Your task to perform on an android device: find photos in the google photos app Image 0: 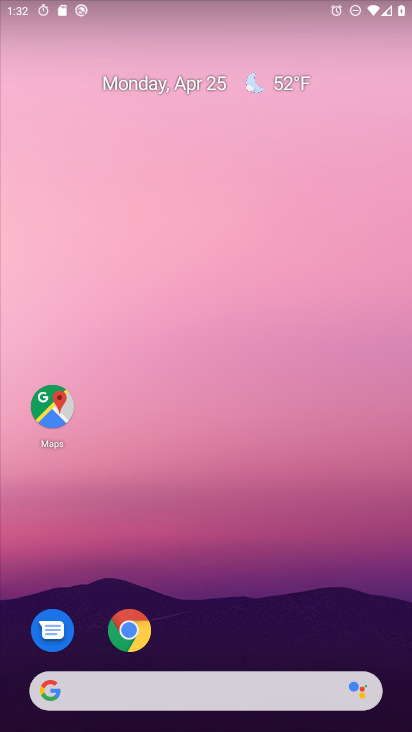
Step 0: drag from (217, 619) to (215, 255)
Your task to perform on an android device: find photos in the google photos app Image 1: 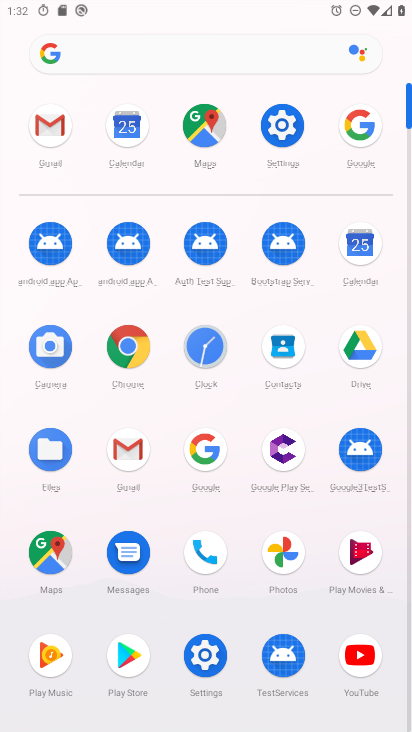
Step 1: click (286, 549)
Your task to perform on an android device: find photos in the google photos app Image 2: 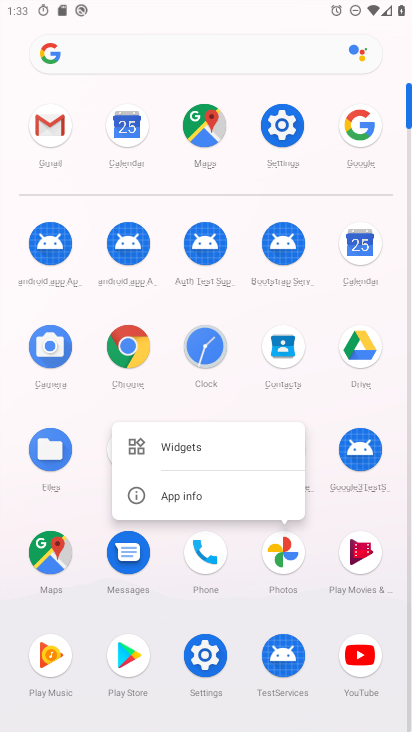
Step 2: click (153, 490)
Your task to perform on an android device: find photos in the google photos app Image 3: 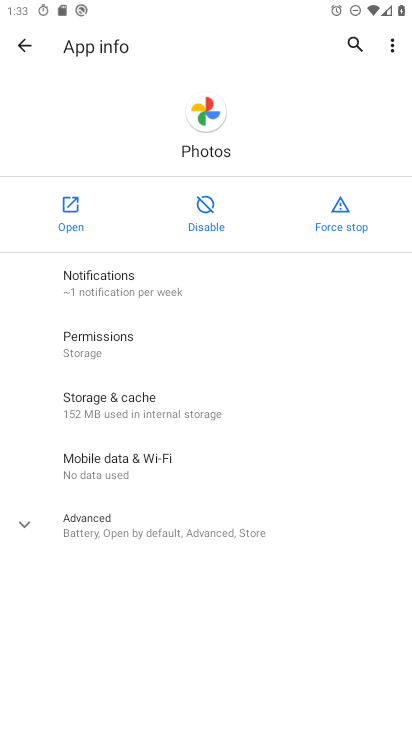
Step 3: click (24, 204)
Your task to perform on an android device: find photos in the google photos app Image 4: 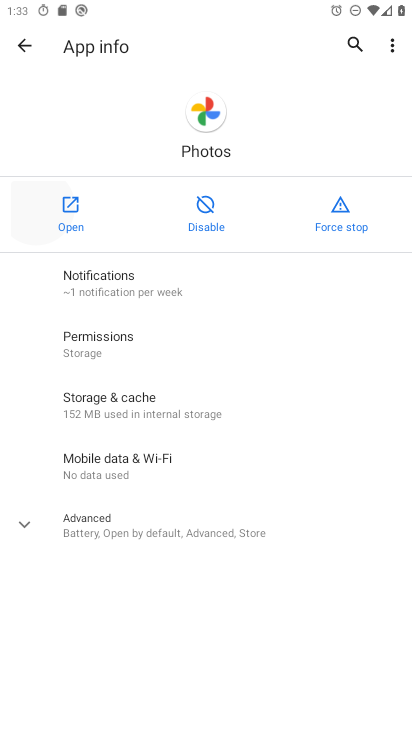
Step 4: click (64, 202)
Your task to perform on an android device: find photos in the google photos app Image 5: 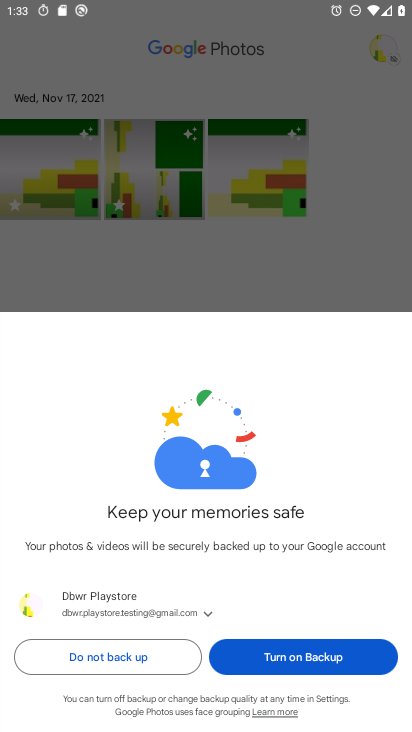
Step 5: click (234, 384)
Your task to perform on an android device: find photos in the google photos app Image 6: 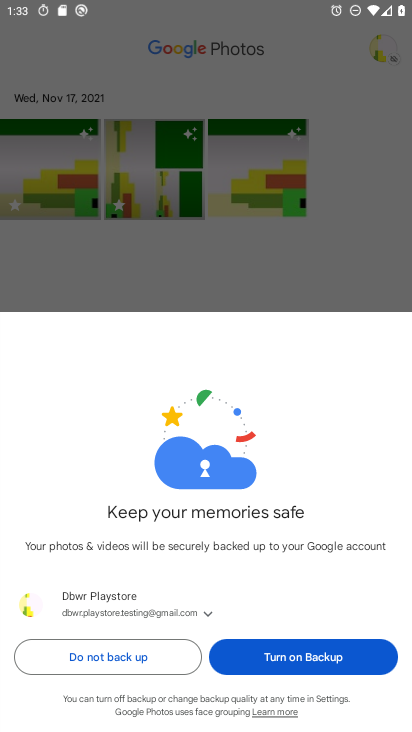
Step 6: click (265, 667)
Your task to perform on an android device: find photos in the google photos app Image 7: 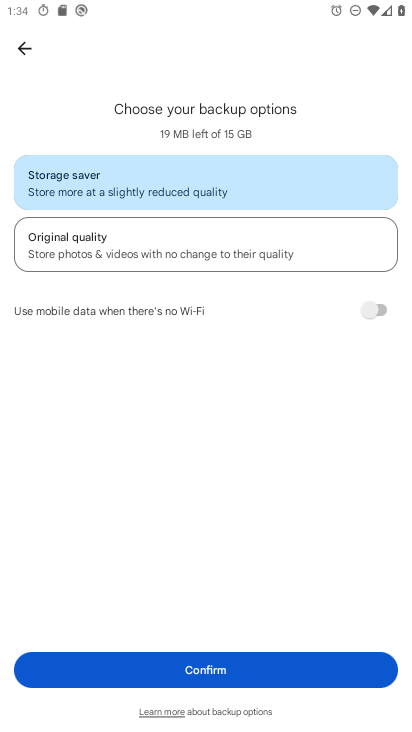
Step 7: click (149, 682)
Your task to perform on an android device: find photos in the google photos app Image 8: 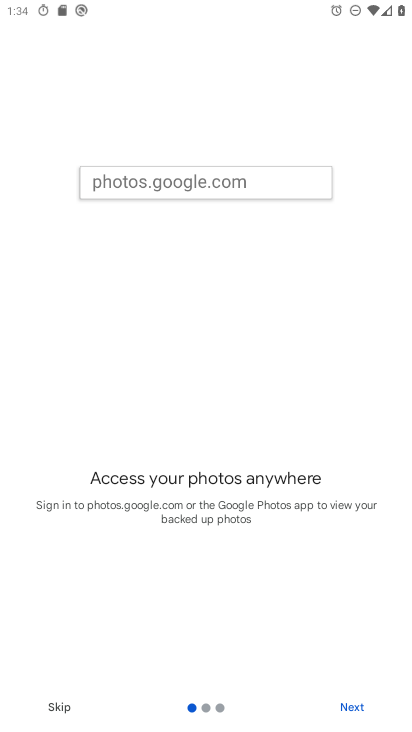
Step 8: click (53, 710)
Your task to perform on an android device: find photos in the google photos app Image 9: 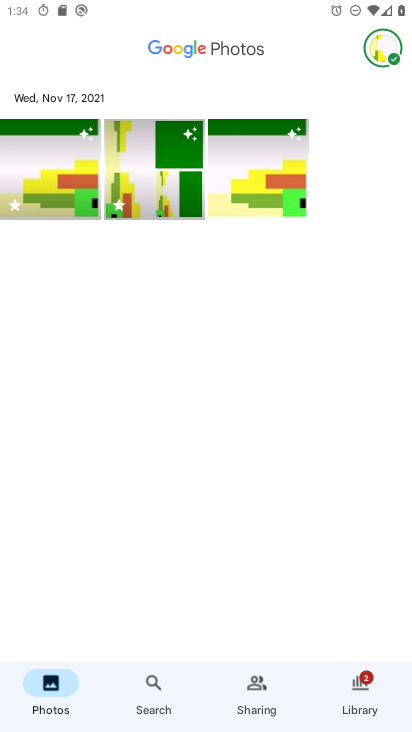
Step 9: click (167, 220)
Your task to perform on an android device: find photos in the google photos app Image 10: 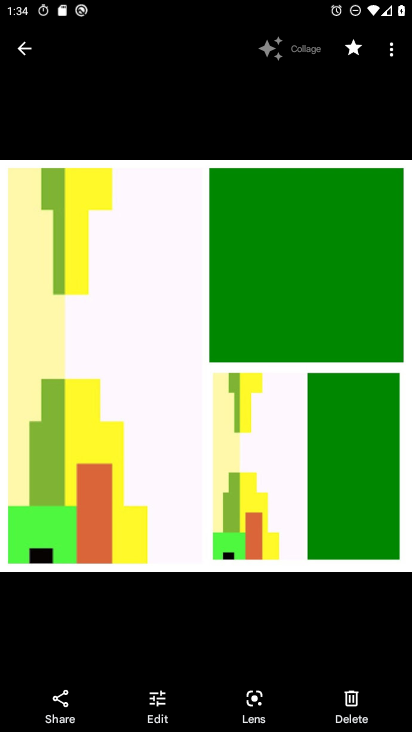
Step 10: task complete